Your task to perform on an android device: open wifi settings Image 0: 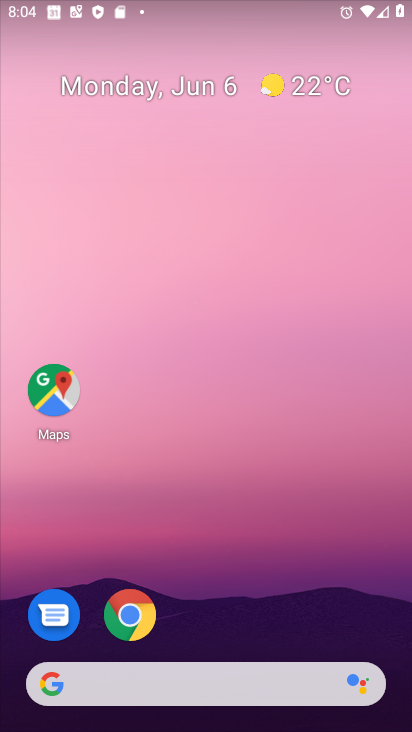
Step 0: drag from (399, 720) to (347, 95)
Your task to perform on an android device: open wifi settings Image 1: 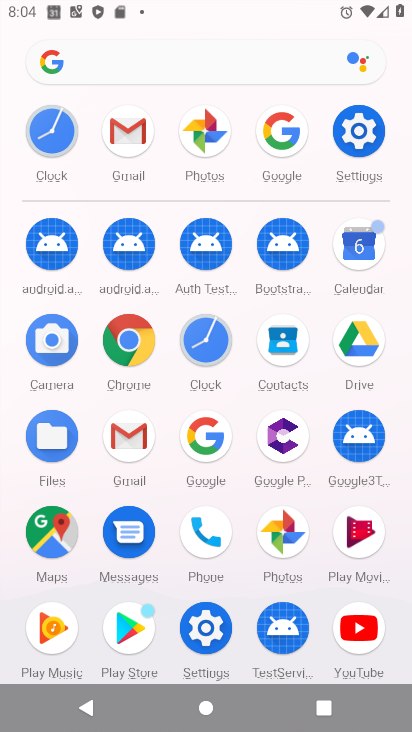
Step 1: click (355, 141)
Your task to perform on an android device: open wifi settings Image 2: 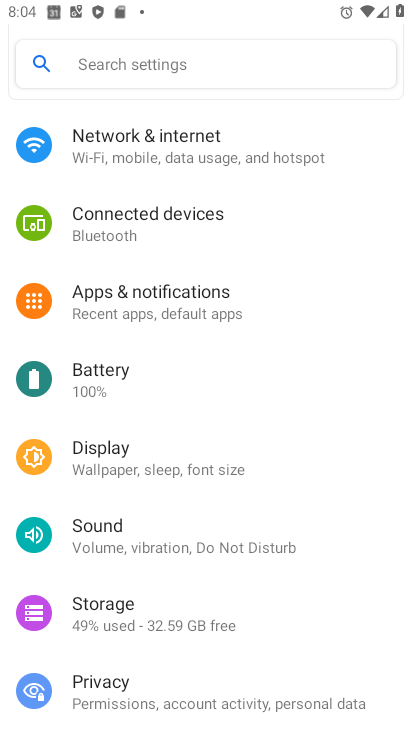
Step 2: drag from (333, 112) to (351, 513)
Your task to perform on an android device: open wifi settings Image 3: 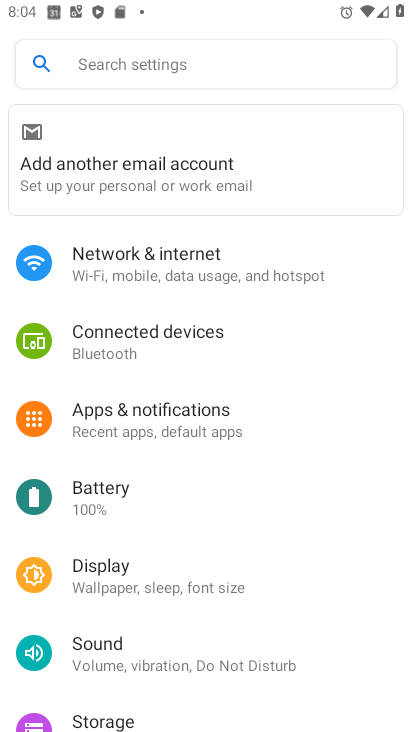
Step 3: click (156, 266)
Your task to perform on an android device: open wifi settings Image 4: 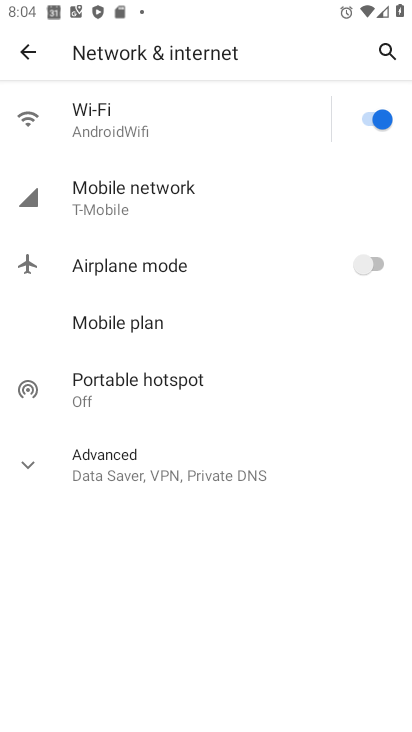
Step 4: click (150, 124)
Your task to perform on an android device: open wifi settings Image 5: 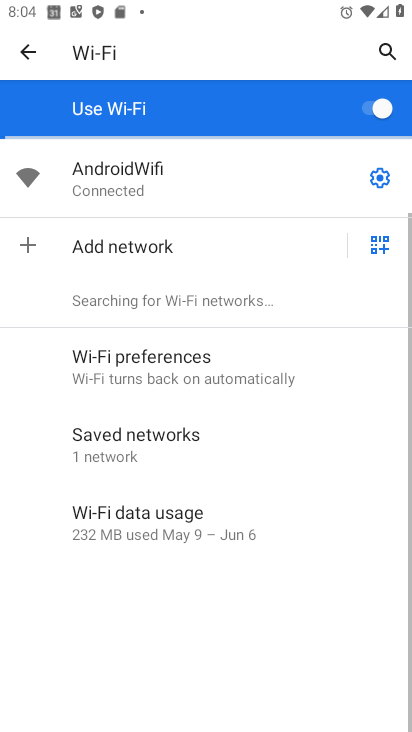
Step 5: click (370, 183)
Your task to perform on an android device: open wifi settings Image 6: 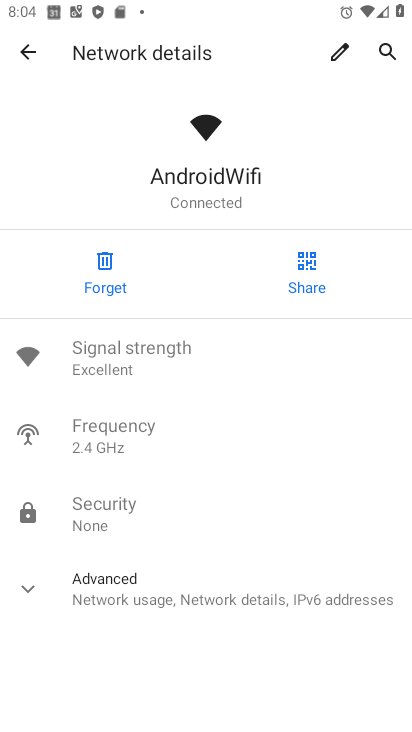
Step 6: task complete